Your task to perform on an android device: toggle javascript in the chrome app Image 0: 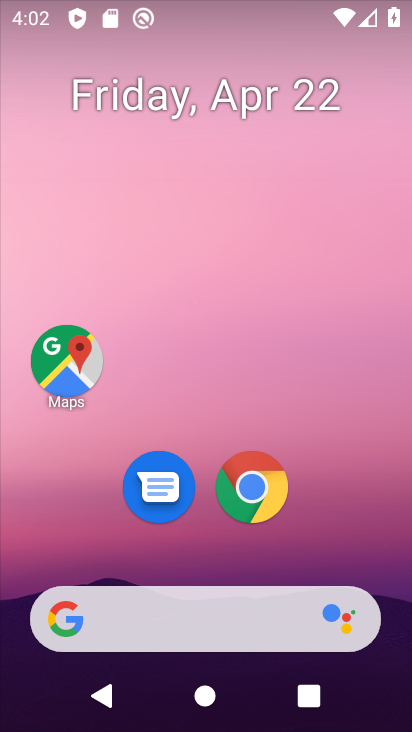
Step 0: click (253, 492)
Your task to perform on an android device: toggle javascript in the chrome app Image 1: 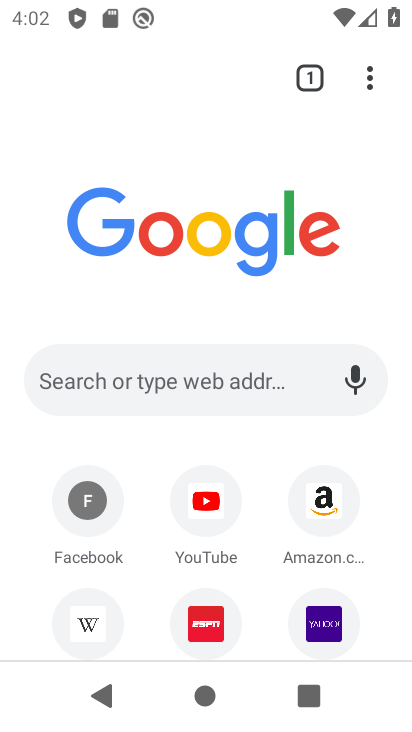
Step 1: click (382, 75)
Your task to perform on an android device: toggle javascript in the chrome app Image 2: 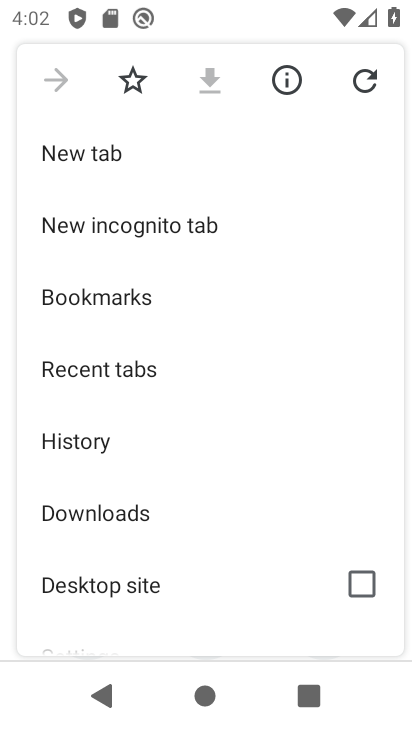
Step 2: drag from (188, 573) to (219, 218)
Your task to perform on an android device: toggle javascript in the chrome app Image 3: 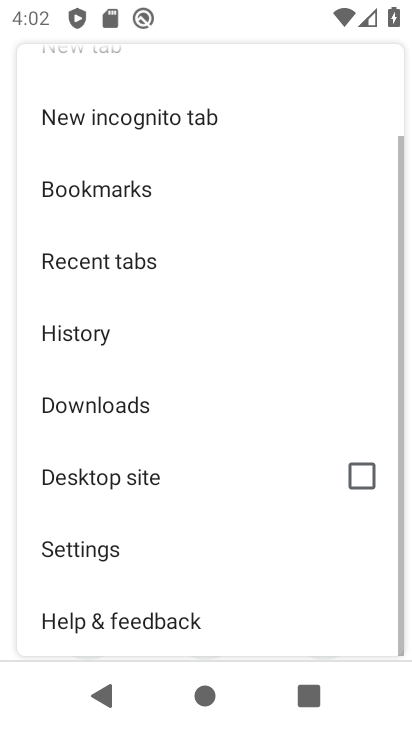
Step 3: click (112, 557)
Your task to perform on an android device: toggle javascript in the chrome app Image 4: 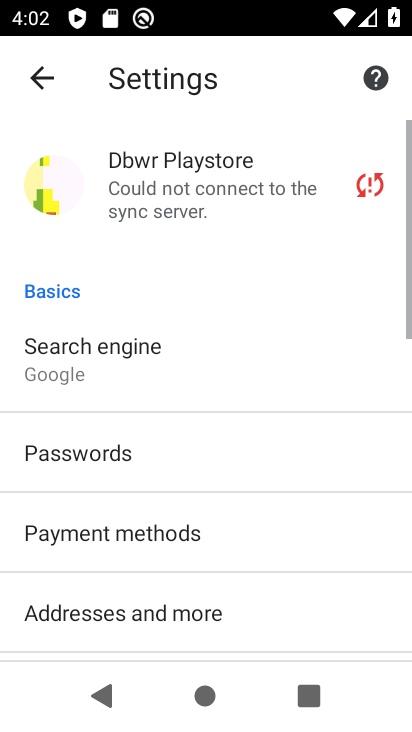
Step 4: drag from (139, 590) to (228, 128)
Your task to perform on an android device: toggle javascript in the chrome app Image 5: 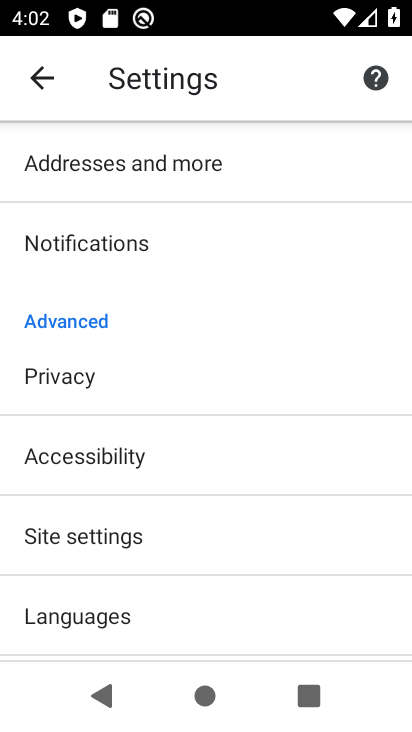
Step 5: click (155, 557)
Your task to perform on an android device: toggle javascript in the chrome app Image 6: 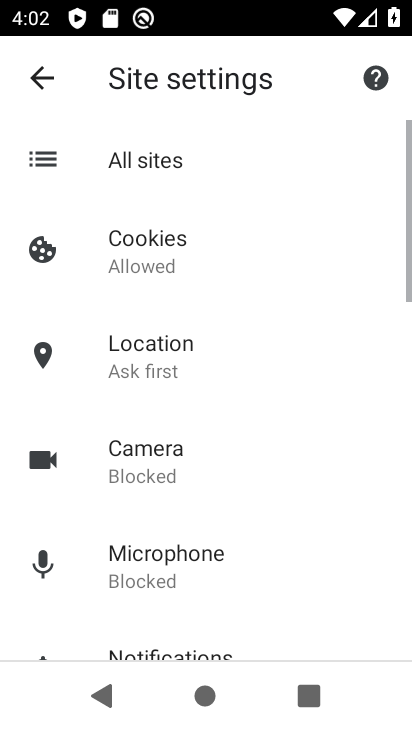
Step 6: drag from (164, 584) to (192, 187)
Your task to perform on an android device: toggle javascript in the chrome app Image 7: 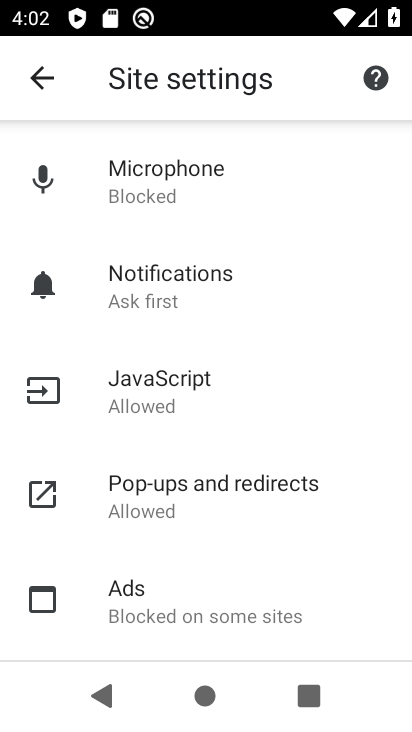
Step 7: click (181, 379)
Your task to perform on an android device: toggle javascript in the chrome app Image 8: 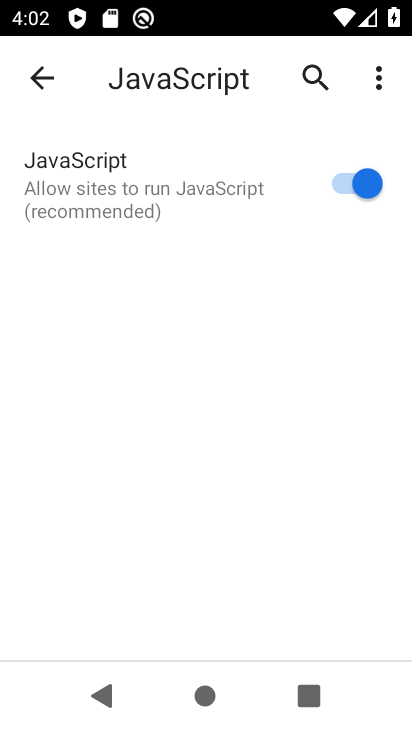
Step 8: click (363, 177)
Your task to perform on an android device: toggle javascript in the chrome app Image 9: 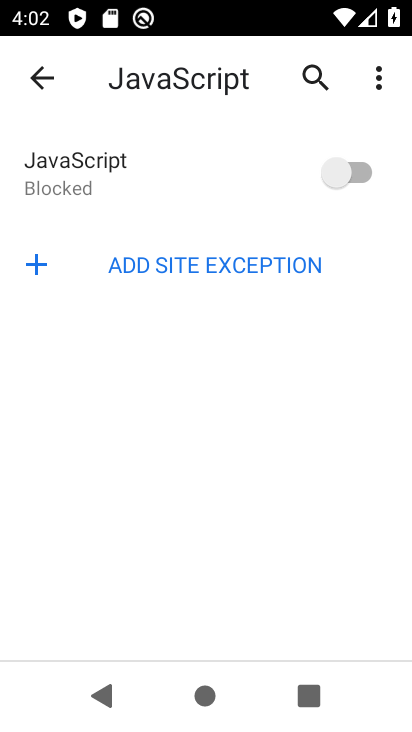
Step 9: task complete